Your task to perform on an android device: Search for the new iphone 13 pro on Etsy. Image 0: 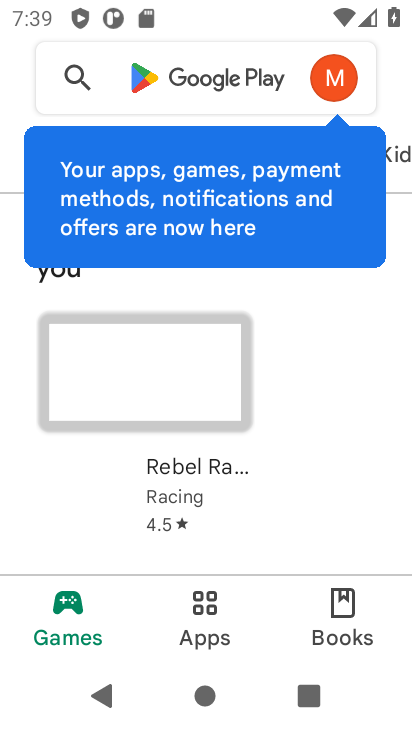
Step 0: press home button
Your task to perform on an android device: Search for the new iphone 13 pro on Etsy. Image 1: 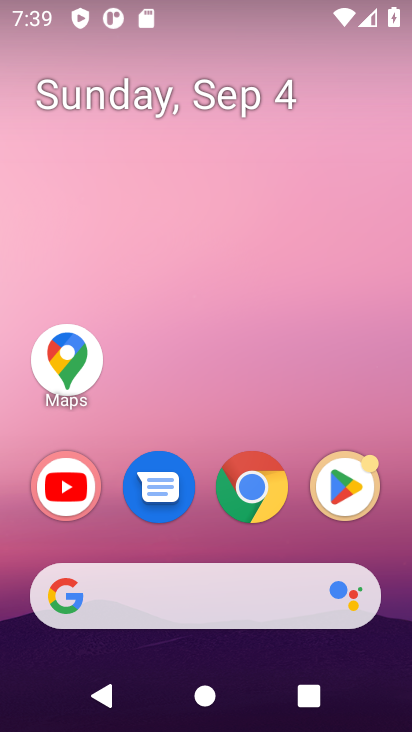
Step 1: click (179, 590)
Your task to perform on an android device: Search for the new iphone 13 pro on Etsy. Image 2: 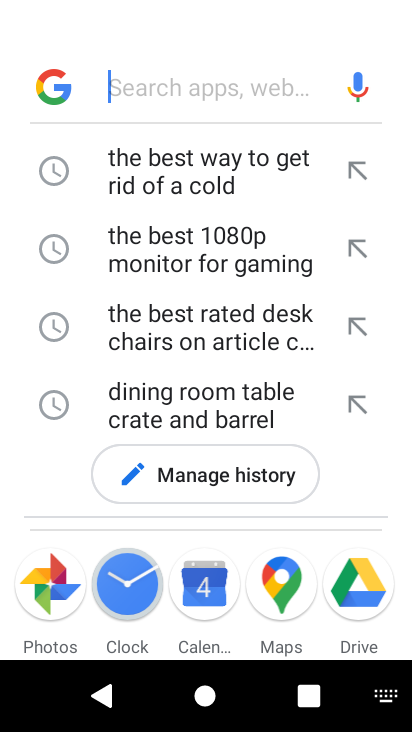
Step 2: type "the new iphone 13 pro on Etsy"
Your task to perform on an android device: Search for the new iphone 13 pro on Etsy. Image 3: 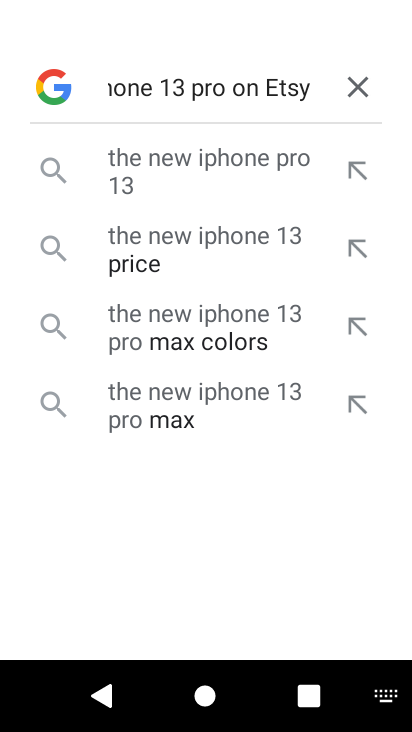
Step 3: click (240, 164)
Your task to perform on an android device: Search for the new iphone 13 pro on Etsy. Image 4: 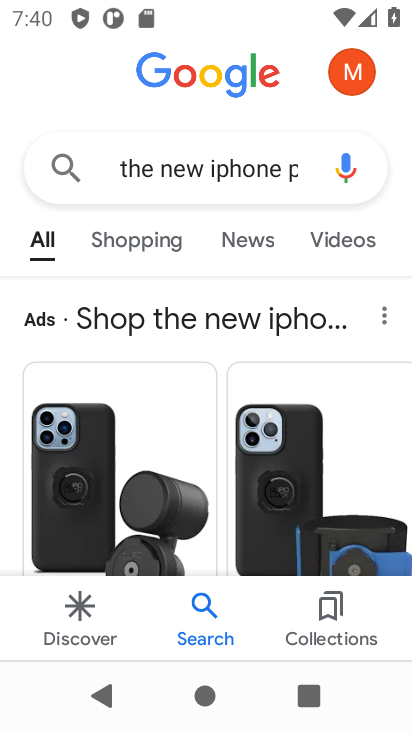
Step 4: task complete